Your task to perform on an android device: What is the recent news? Image 0: 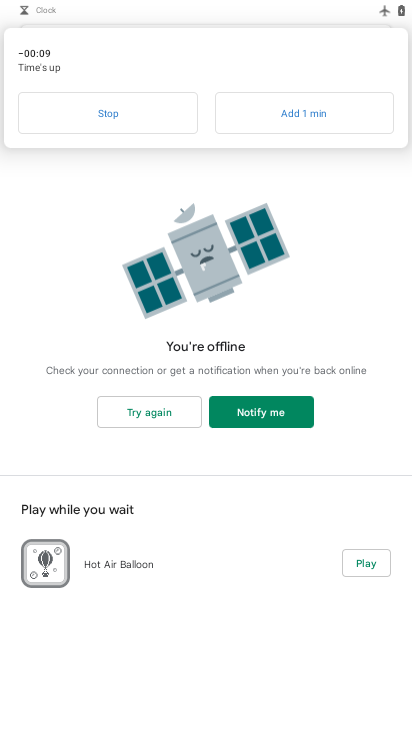
Step 0: press home button
Your task to perform on an android device: What is the recent news? Image 1: 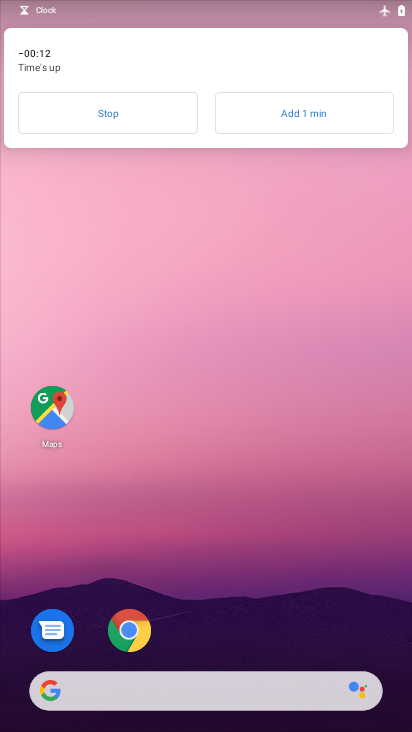
Step 1: click (158, 117)
Your task to perform on an android device: What is the recent news? Image 2: 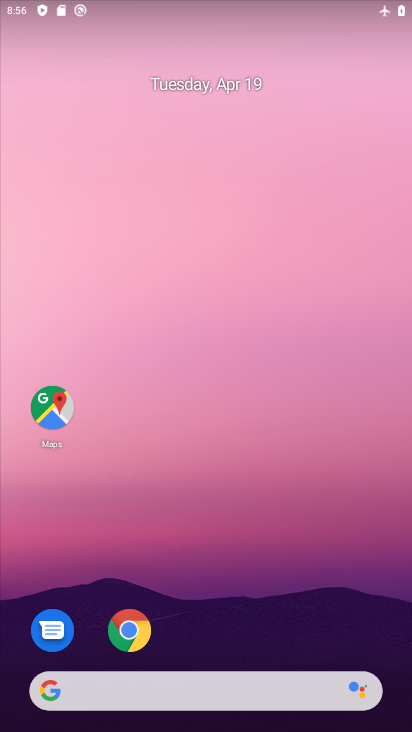
Step 2: drag from (284, 67) to (279, 454)
Your task to perform on an android device: What is the recent news? Image 3: 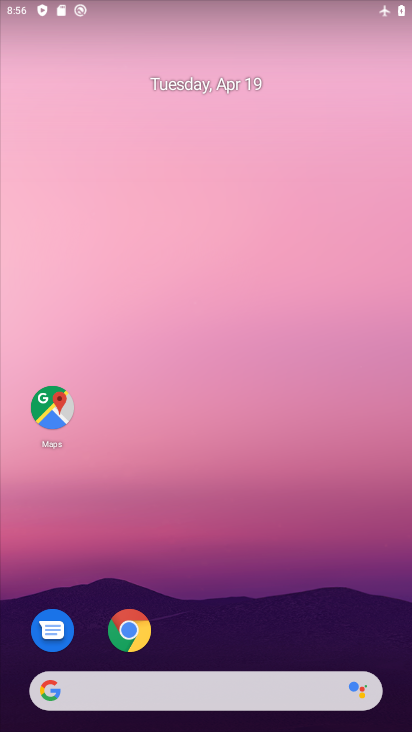
Step 3: drag from (243, 534) to (209, 205)
Your task to perform on an android device: What is the recent news? Image 4: 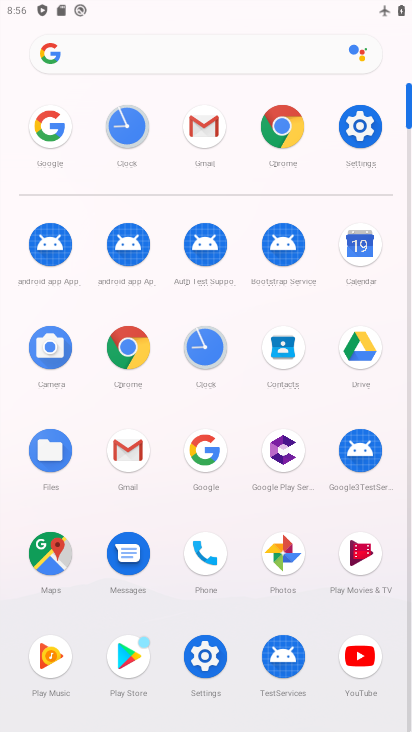
Step 4: click (357, 136)
Your task to perform on an android device: What is the recent news? Image 5: 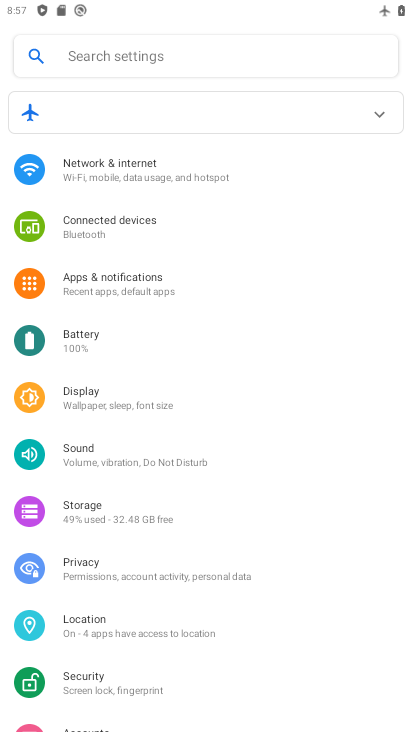
Step 5: press home button
Your task to perform on an android device: What is the recent news? Image 6: 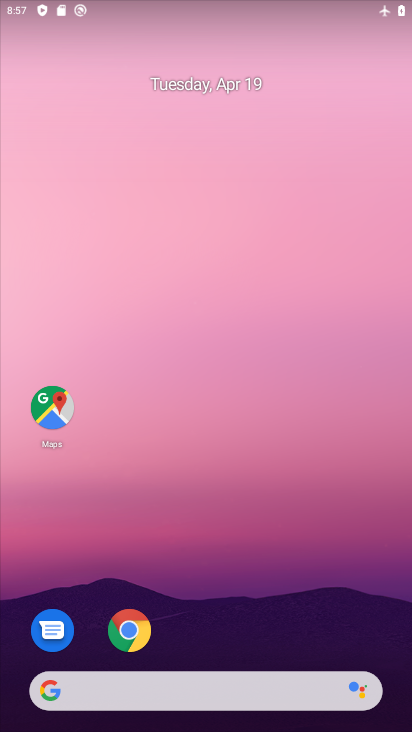
Step 6: click (275, 187)
Your task to perform on an android device: What is the recent news? Image 7: 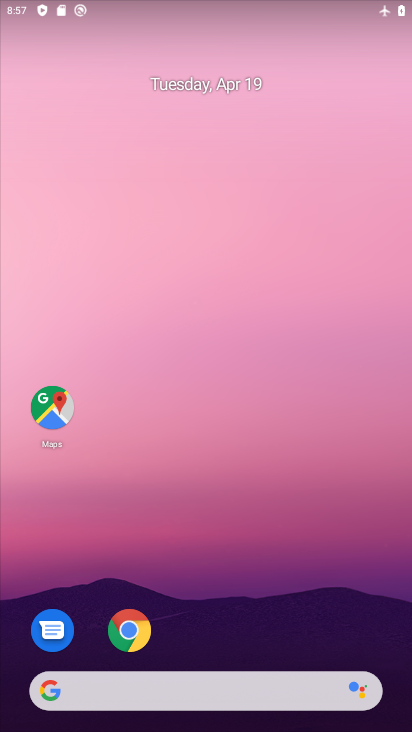
Step 7: drag from (231, 541) to (218, 224)
Your task to perform on an android device: What is the recent news? Image 8: 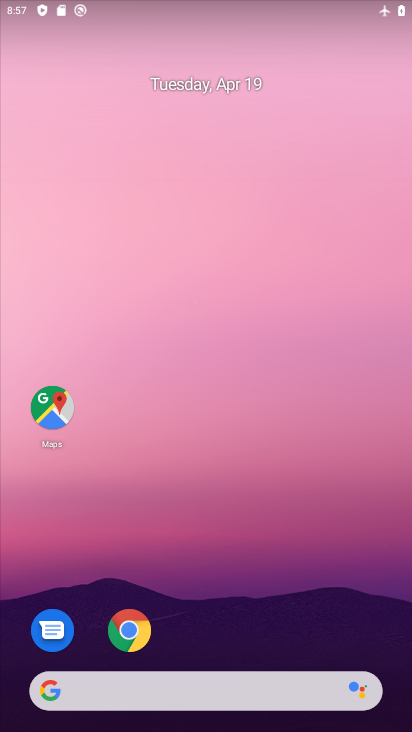
Step 8: drag from (255, 652) to (272, 250)
Your task to perform on an android device: What is the recent news? Image 9: 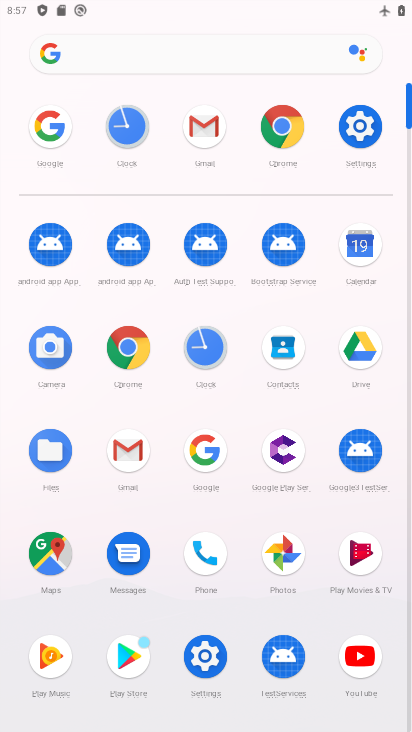
Step 9: click (368, 142)
Your task to perform on an android device: What is the recent news? Image 10: 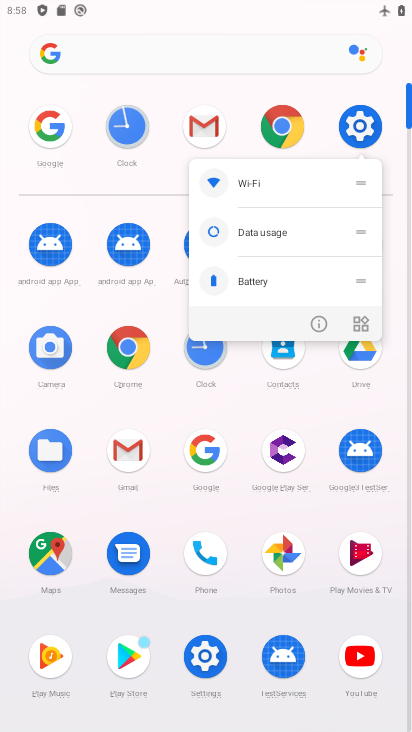
Step 10: click (367, 124)
Your task to perform on an android device: What is the recent news? Image 11: 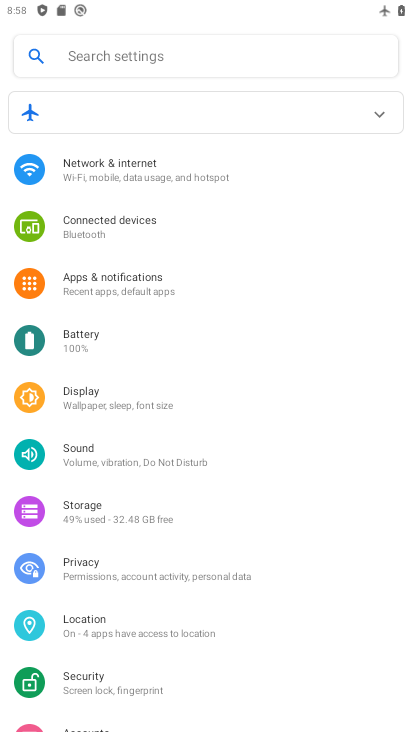
Step 11: click (151, 172)
Your task to perform on an android device: What is the recent news? Image 12: 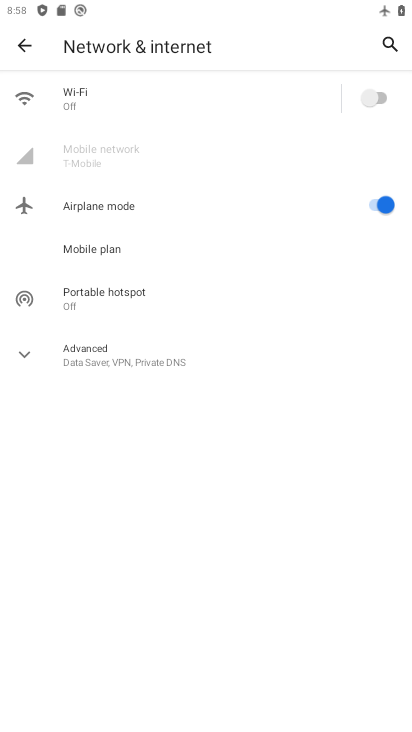
Step 12: click (365, 190)
Your task to perform on an android device: What is the recent news? Image 13: 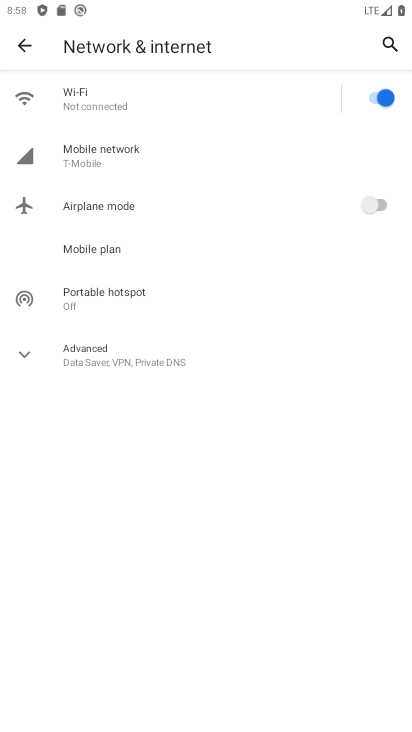
Step 13: task complete